Your task to perform on an android device: turn off picture-in-picture Image 0: 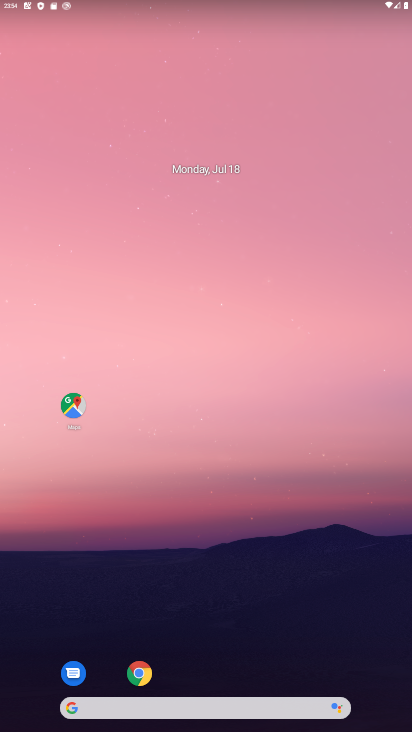
Step 0: drag from (210, 636) to (224, 183)
Your task to perform on an android device: turn off picture-in-picture Image 1: 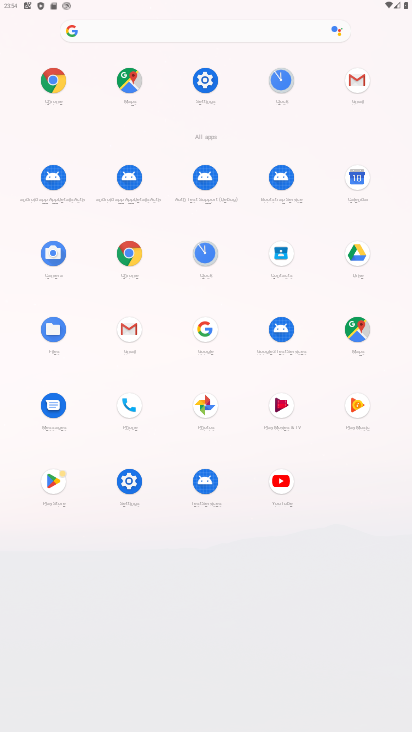
Step 1: click (214, 73)
Your task to perform on an android device: turn off picture-in-picture Image 2: 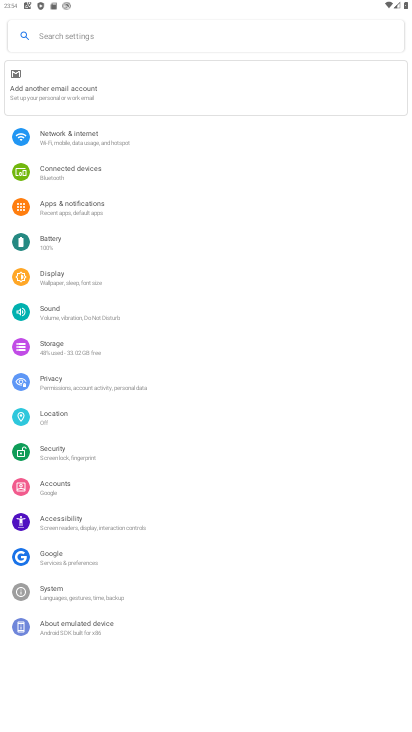
Step 2: click (95, 138)
Your task to perform on an android device: turn off picture-in-picture Image 3: 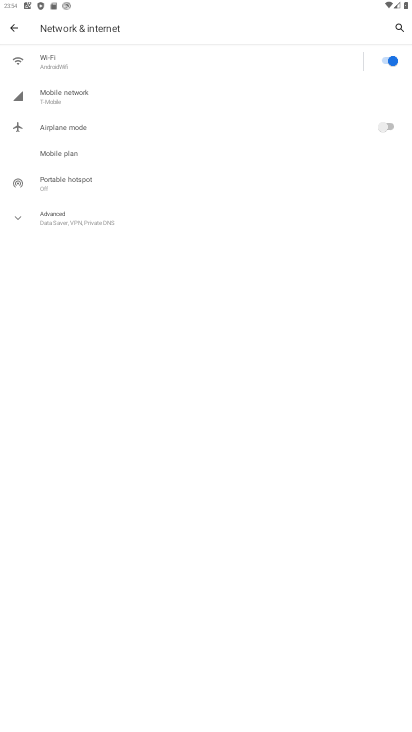
Step 3: click (12, 34)
Your task to perform on an android device: turn off picture-in-picture Image 4: 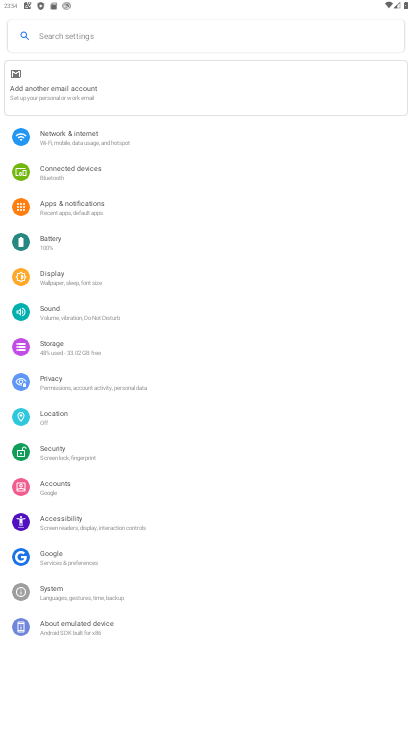
Step 4: click (89, 205)
Your task to perform on an android device: turn off picture-in-picture Image 5: 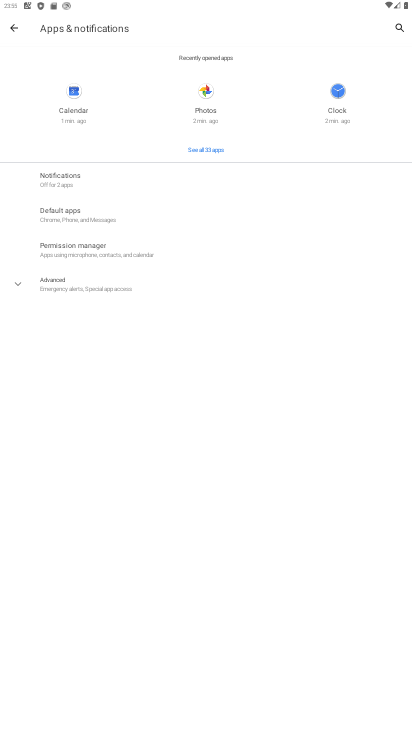
Step 5: click (86, 283)
Your task to perform on an android device: turn off picture-in-picture Image 6: 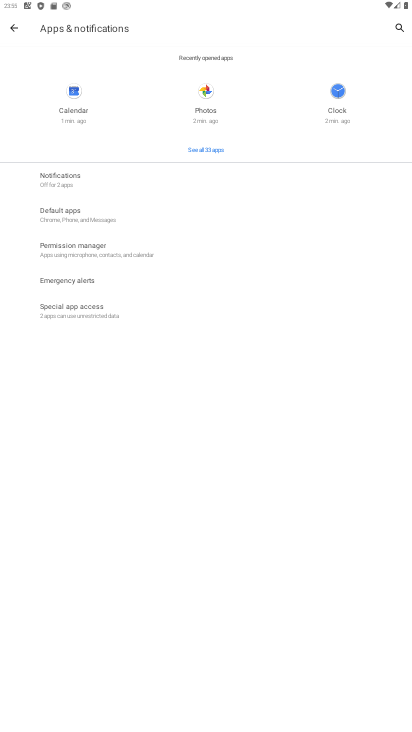
Step 6: click (80, 312)
Your task to perform on an android device: turn off picture-in-picture Image 7: 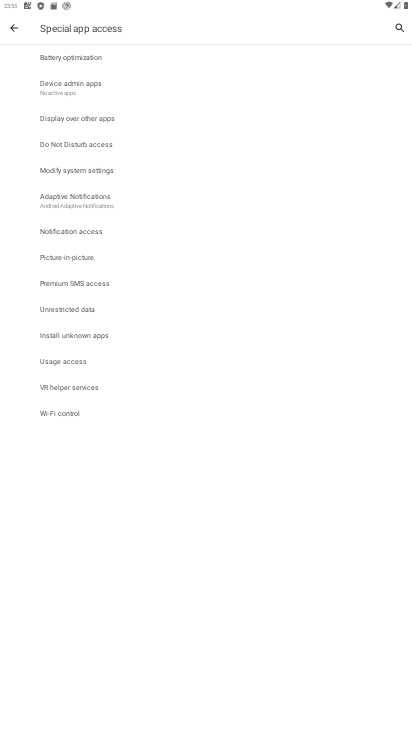
Step 7: click (14, 24)
Your task to perform on an android device: turn off picture-in-picture Image 8: 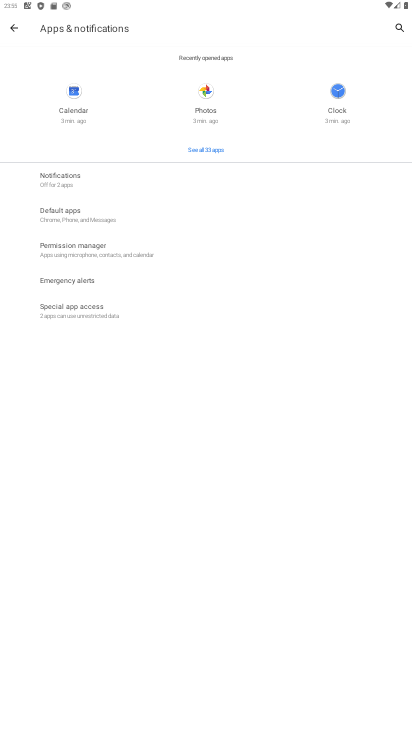
Step 8: click (65, 306)
Your task to perform on an android device: turn off picture-in-picture Image 9: 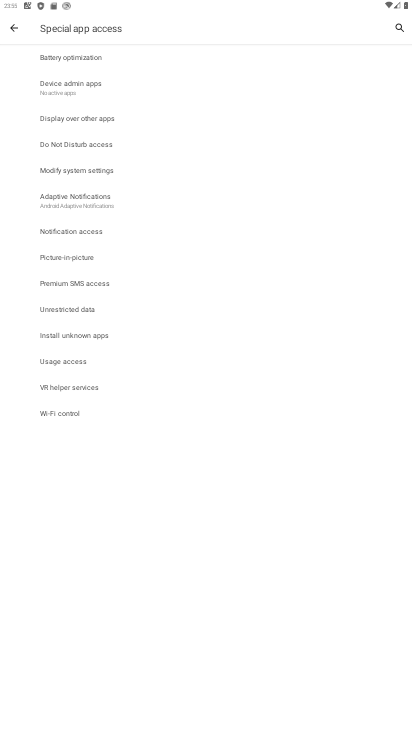
Step 9: click (84, 256)
Your task to perform on an android device: turn off picture-in-picture Image 10: 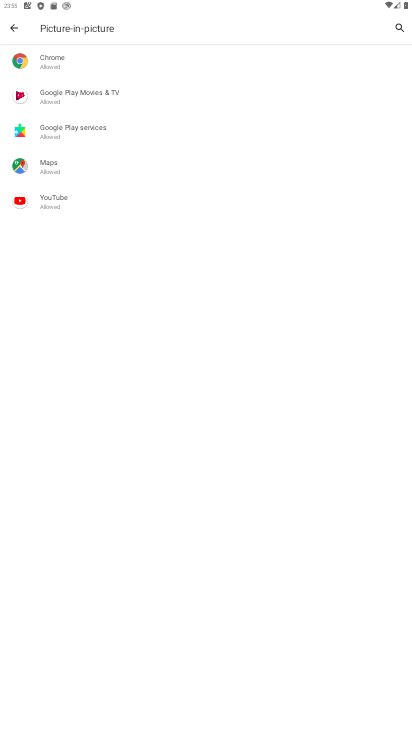
Step 10: click (49, 196)
Your task to perform on an android device: turn off picture-in-picture Image 11: 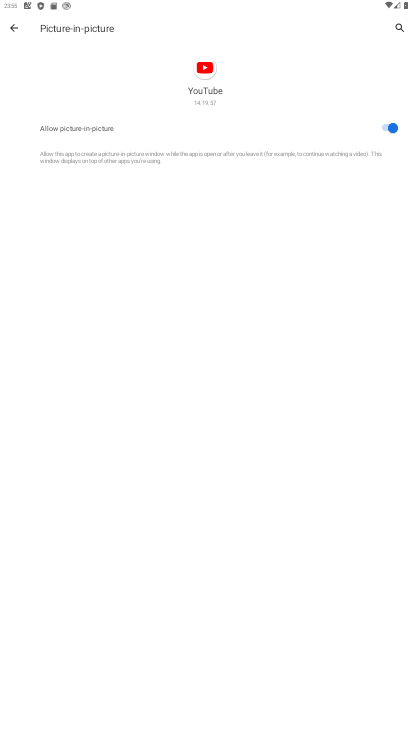
Step 11: click (390, 121)
Your task to perform on an android device: turn off picture-in-picture Image 12: 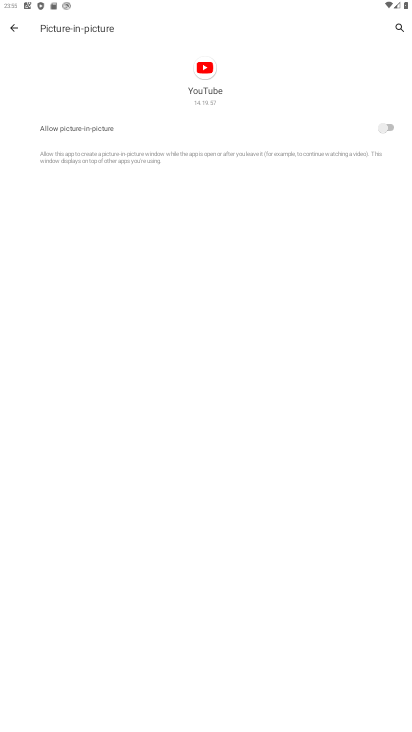
Step 12: task complete